Your task to perform on an android device: Open ESPN.com Image 0: 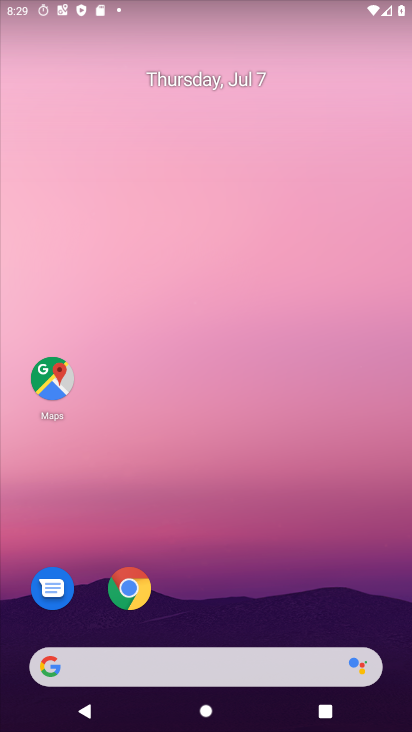
Step 0: click (139, 591)
Your task to perform on an android device: Open ESPN.com Image 1: 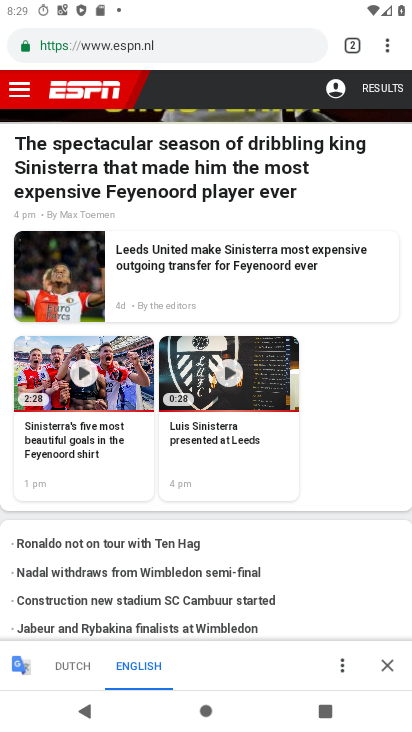
Step 1: task complete